Your task to perform on an android device: turn notification dots off Image 0: 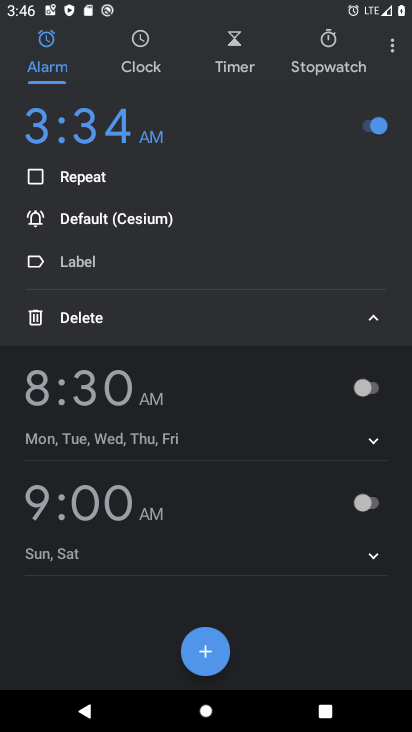
Step 0: press home button
Your task to perform on an android device: turn notification dots off Image 1: 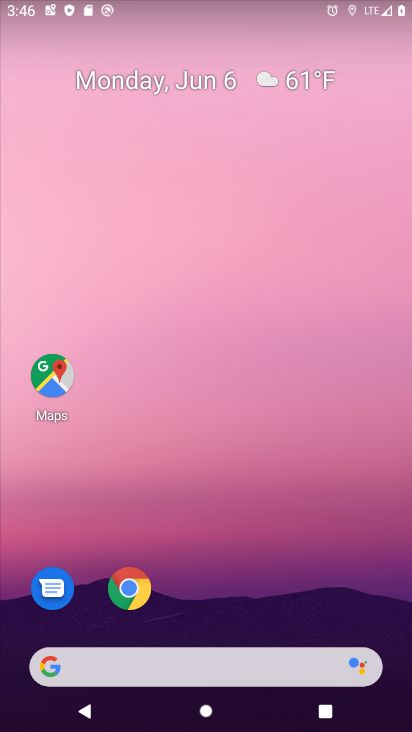
Step 1: drag from (275, 599) to (241, 193)
Your task to perform on an android device: turn notification dots off Image 2: 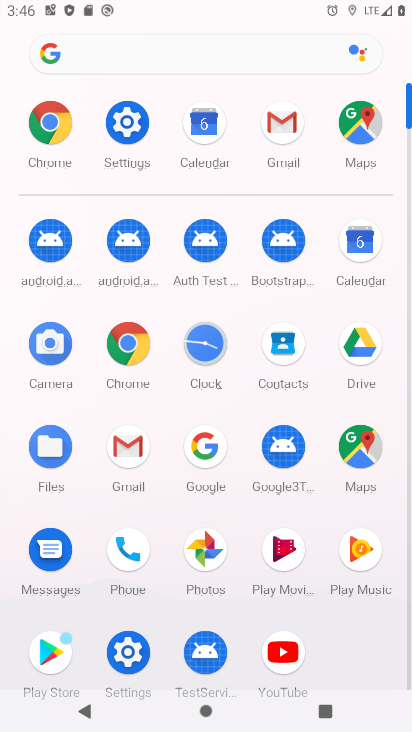
Step 2: click (144, 122)
Your task to perform on an android device: turn notification dots off Image 3: 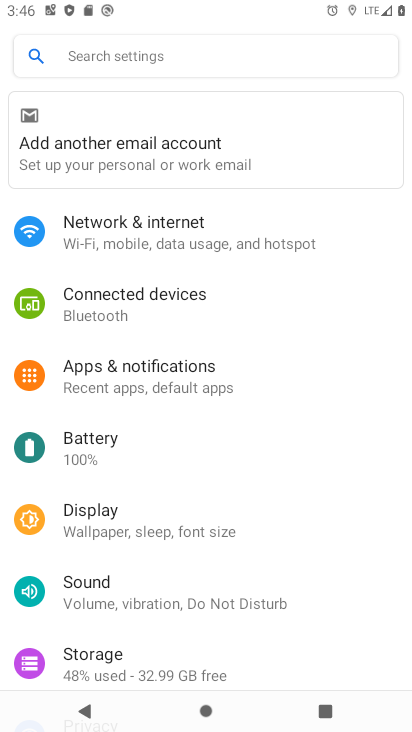
Step 3: click (224, 386)
Your task to perform on an android device: turn notification dots off Image 4: 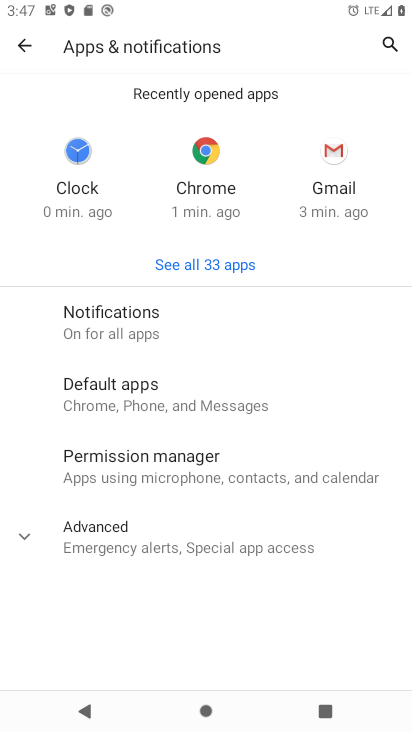
Step 4: click (195, 324)
Your task to perform on an android device: turn notification dots off Image 5: 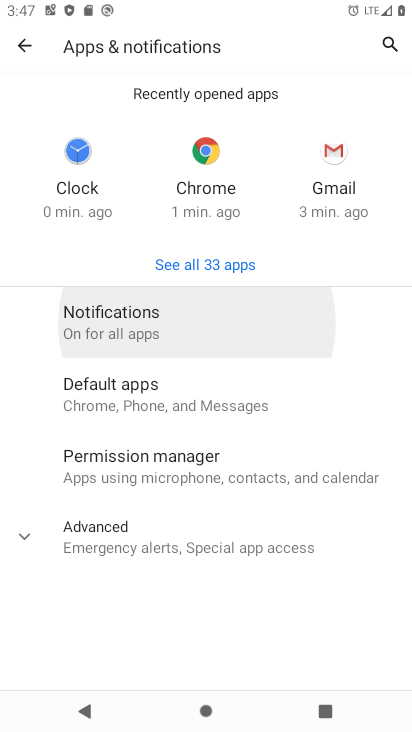
Step 5: click (175, 325)
Your task to perform on an android device: turn notification dots off Image 6: 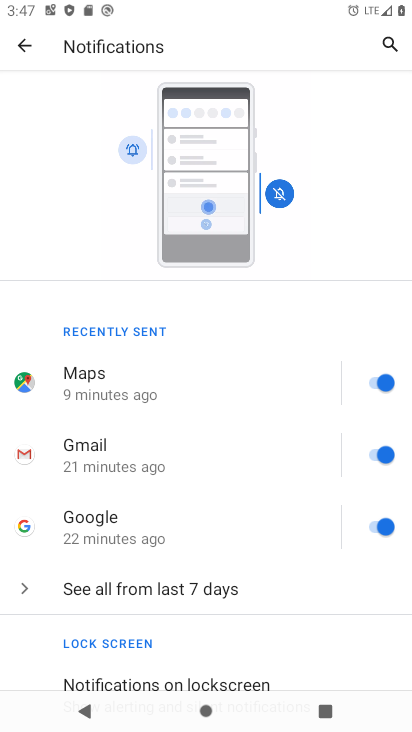
Step 6: drag from (281, 631) to (193, 141)
Your task to perform on an android device: turn notification dots off Image 7: 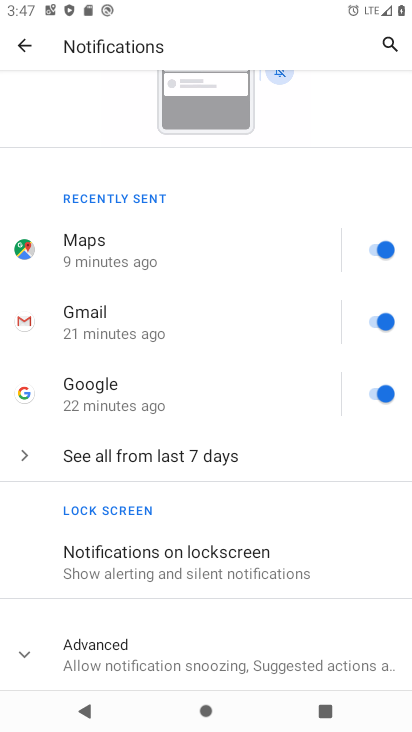
Step 7: drag from (233, 547) to (177, 227)
Your task to perform on an android device: turn notification dots off Image 8: 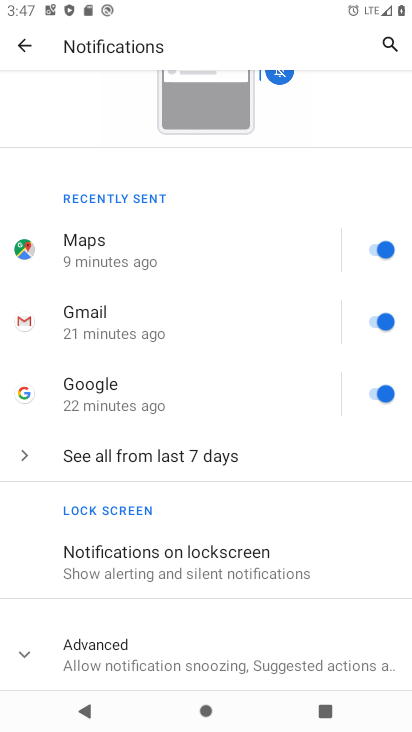
Step 8: click (181, 656)
Your task to perform on an android device: turn notification dots off Image 9: 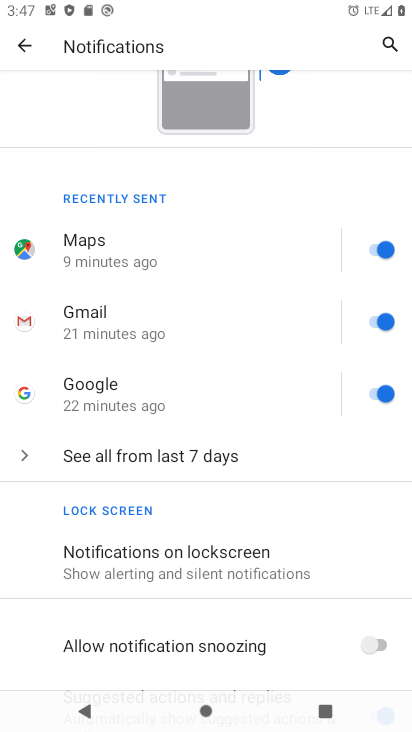
Step 9: drag from (225, 583) to (213, 390)
Your task to perform on an android device: turn notification dots off Image 10: 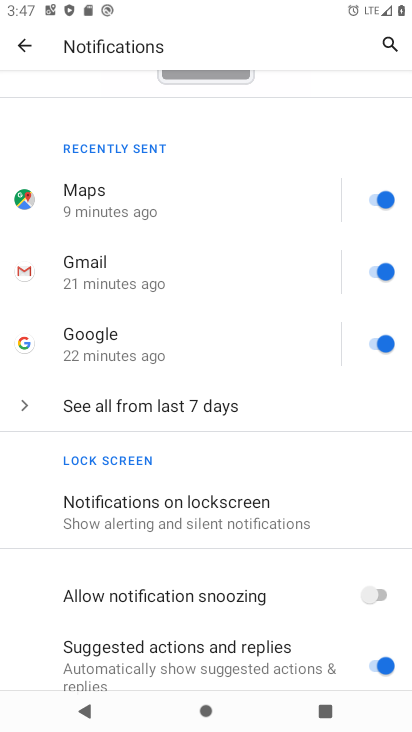
Step 10: drag from (237, 638) to (204, 263)
Your task to perform on an android device: turn notification dots off Image 11: 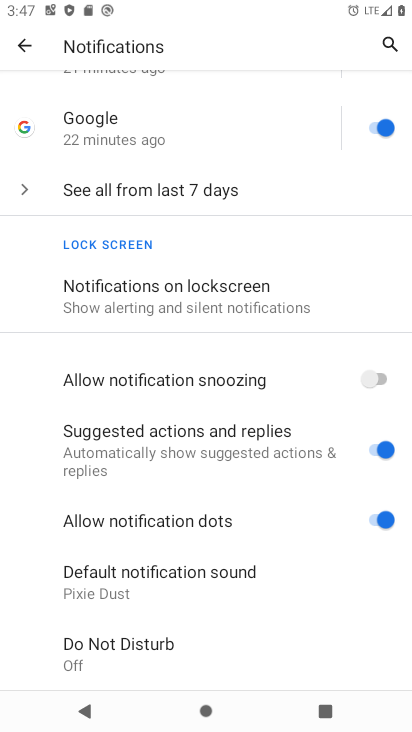
Step 11: click (375, 510)
Your task to perform on an android device: turn notification dots off Image 12: 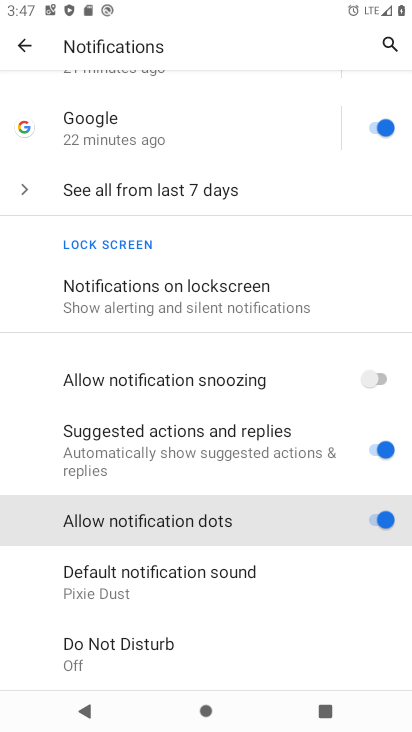
Step 12: task complete